Your task to perform on an android device: turn on notifications settings in the gmail app Image 0: 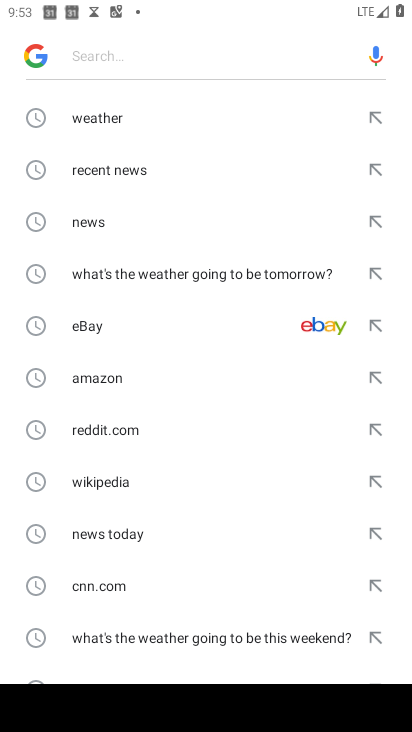
Step 0: press home button
Your task to perform on an android device: turn on notifications settings in the gmail app Image 1: 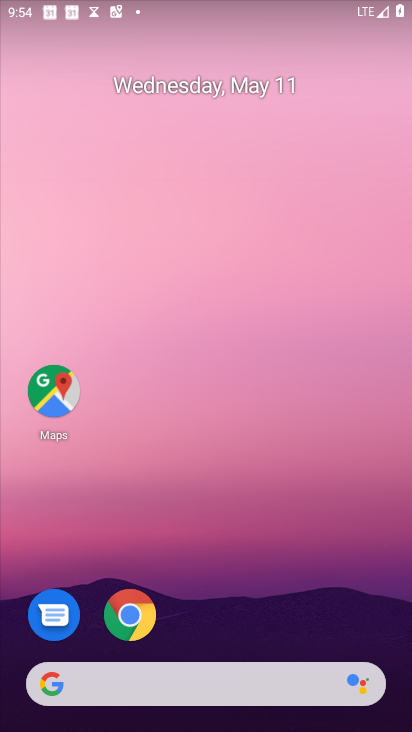
Step 1: drag from (232, 606) to (224, 260)
Your task to perform on an android device: turn on notifications settings in the gmail app Image 2: 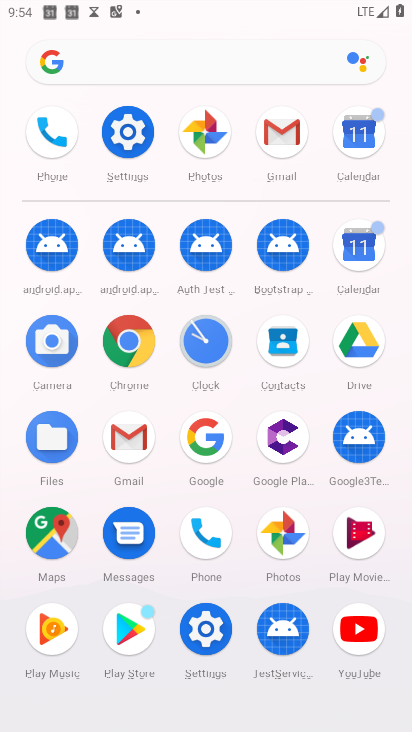
Step 2: click (121, 431)
Your task to perform on an android device: turn on notifications settings in the gmail app Image 3: 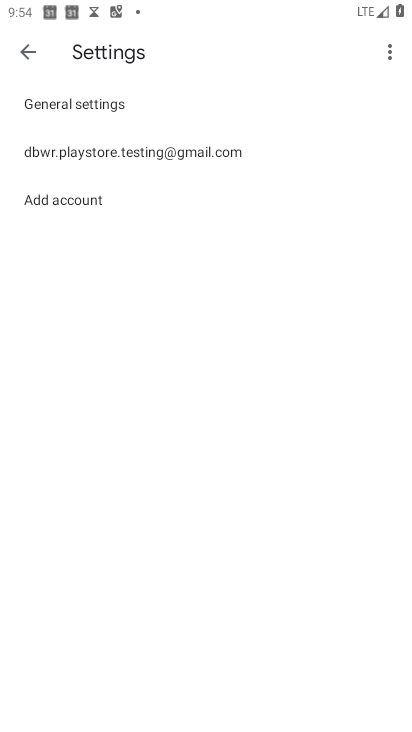
Step 3: click (96, 153)
Your task to perform on an android device: turn on notifications settings in the gmail app Image 4: 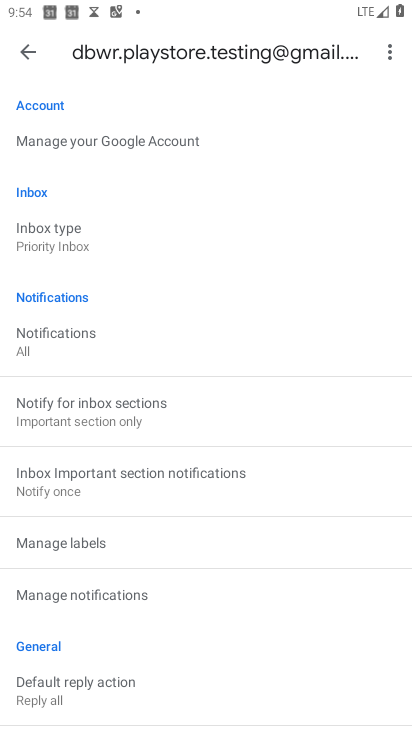
Step 4: click (108, 588)
Your task to perform on an android device: turn on notifications settings in the gmail app Image 5: 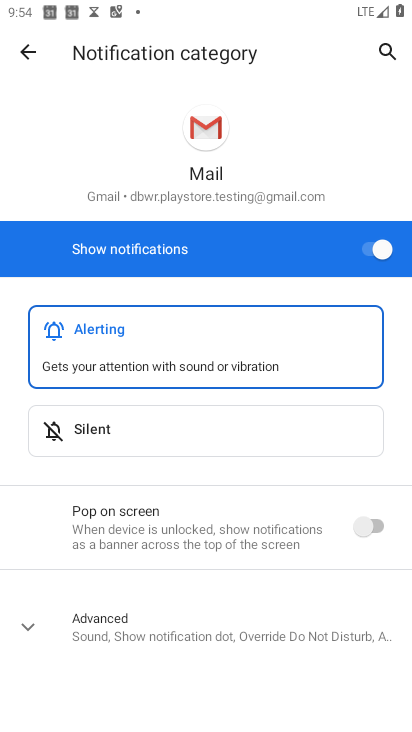
Step 5: task complete